Your task to perform on an android device: Do I have any events today? Image 0: 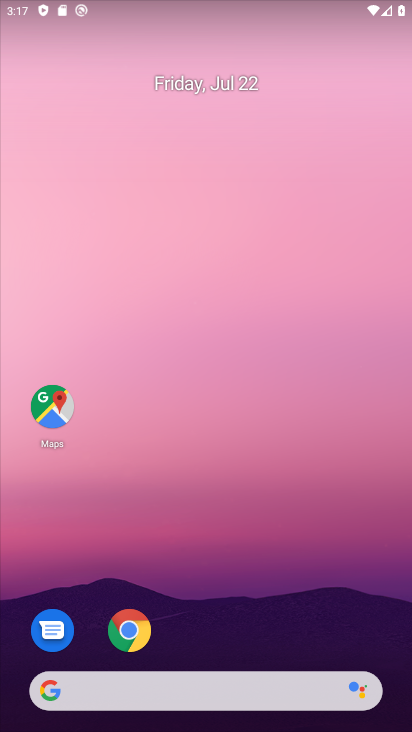
Step 0: drag from (259, 568) to (279, 32)
Your task to perform on an android device: Do I have any events today? Image 1: 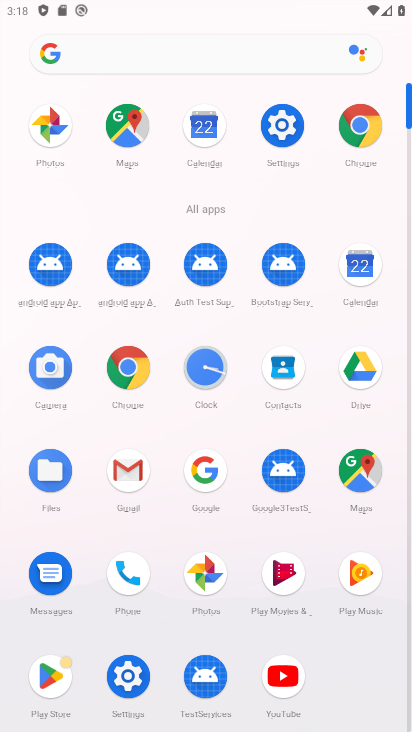
Step 1: click (363, 278)
Your task to perform on an android device: Do I have any events today? Image 2: 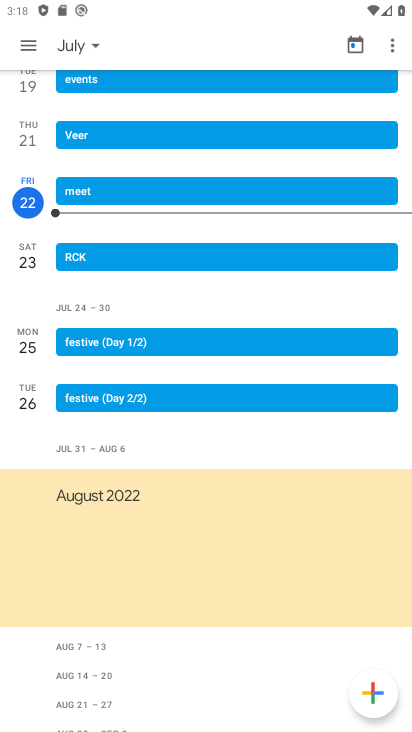
Step 2: click (26, 46)
Your task to perform on an android device: Do I have any events today? Image 3: 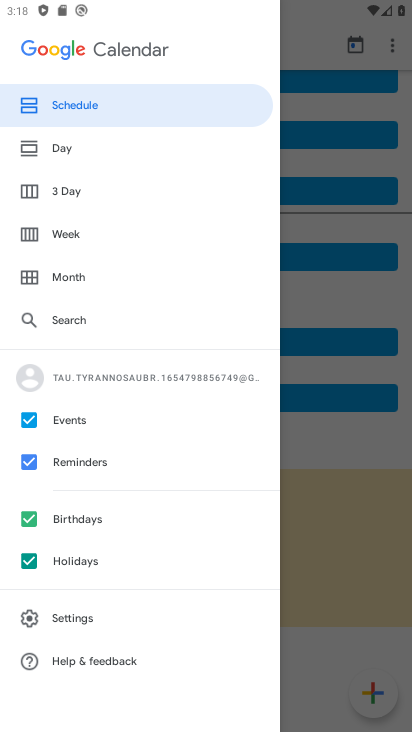
Step 3: click (85, 456)
Your task to perform on an android device: Do I have any events today? Image 4: 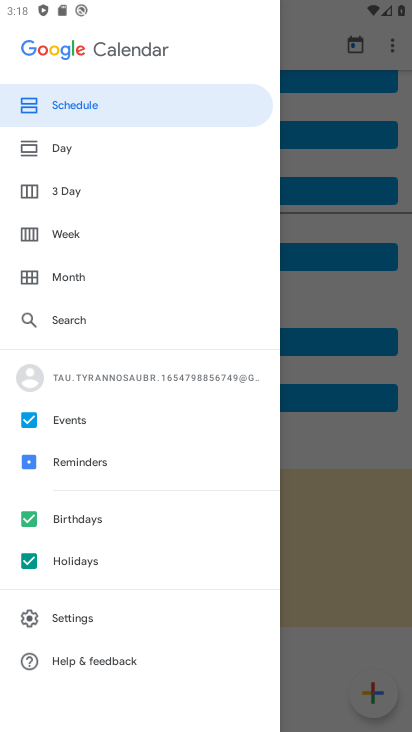
Step 4: click (80, 518)
Your task to perform on an android device: Do I have any events today? Image 5: 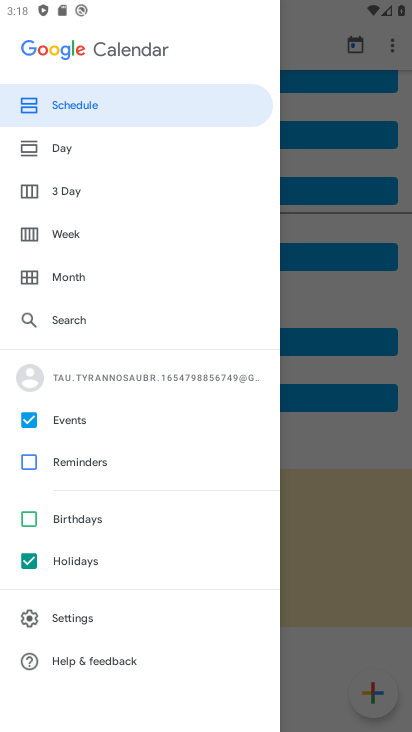
Step 5: click (81, 564)
Your task to perform on an android device: Do I have any events today? Image 6: 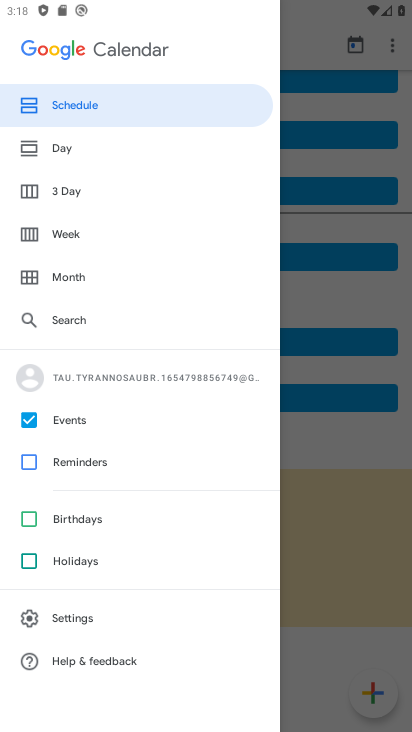
Step 6: click (68, 147)
Your task to perform on an android device: Do I have any events today? Image 7: 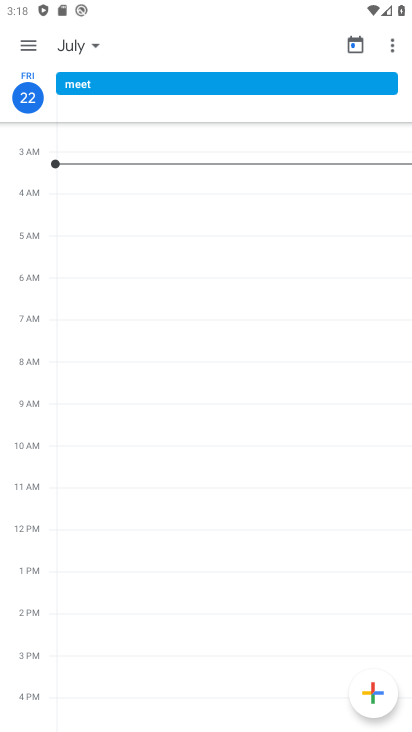
Step 7: task complete